Your task to perform on an android device: Open Google Chrome Image 0: 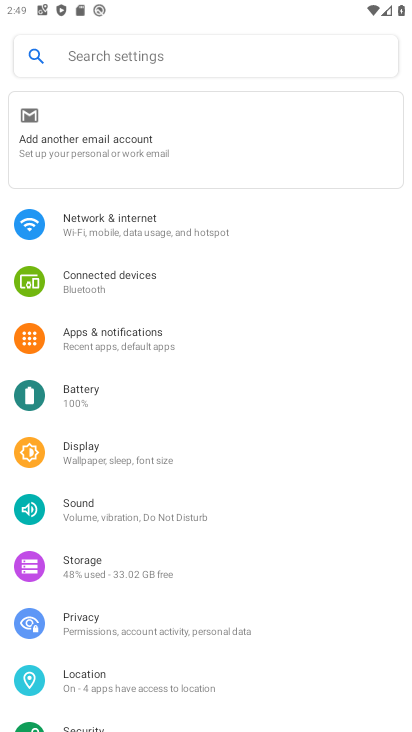
Step 0: press home button
Your task to perform on an android device: Open Google Chrome Image 1: 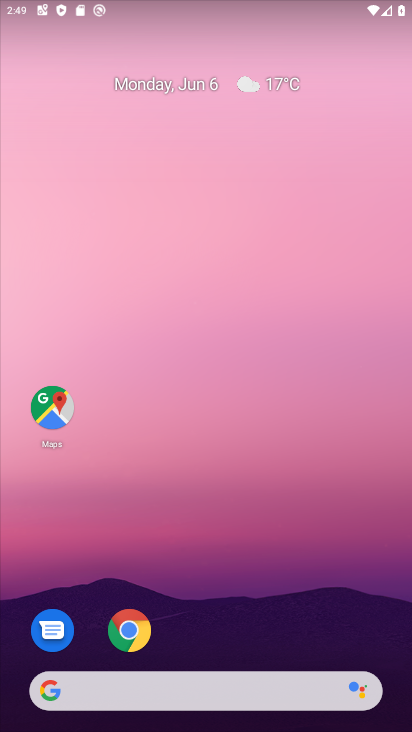
Step 1: click (123, 630)
Your task to perform on an android device: Open Google Chrome Image 2: 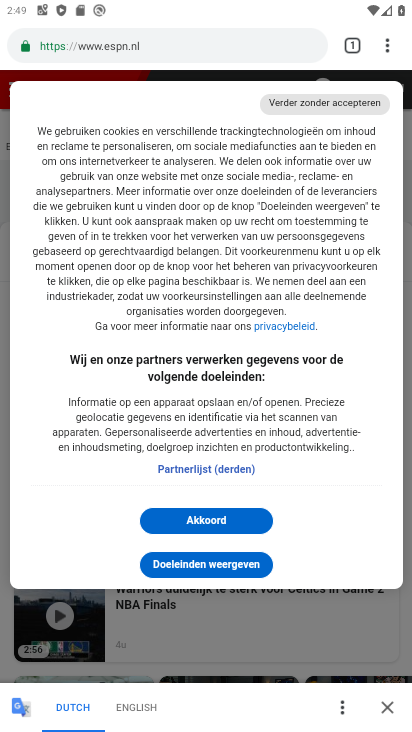
Step 2: click (289, 628)
Your task to perform on an android device: Open Google Chrome Image 3: 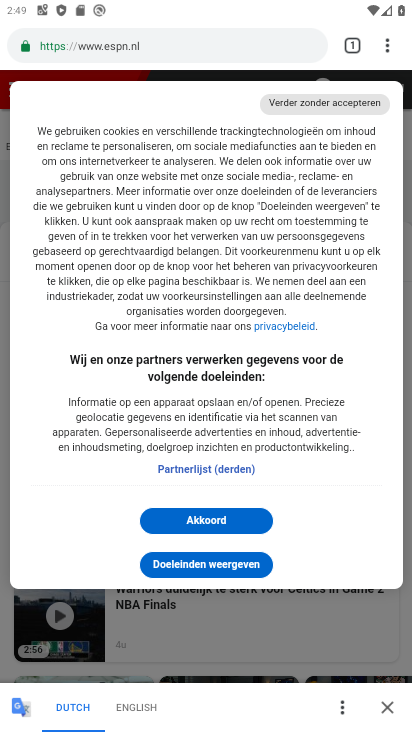
Step 3: task complete